Your task to perform on an android device: Open privacy settings Image 0: 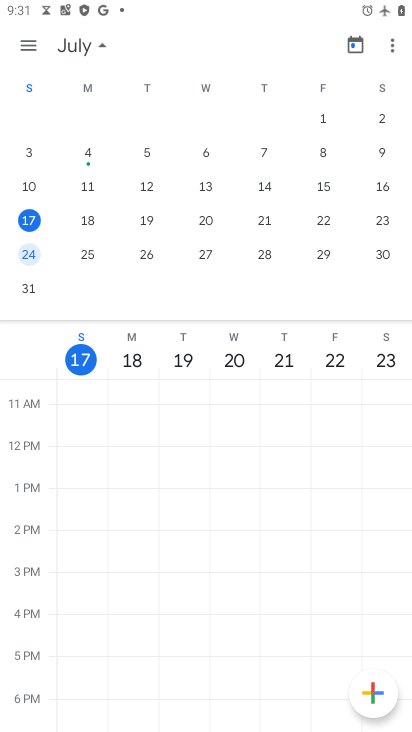
Step 0: press home button
Your task to perform on an android device: Open privacy settings Image 1: 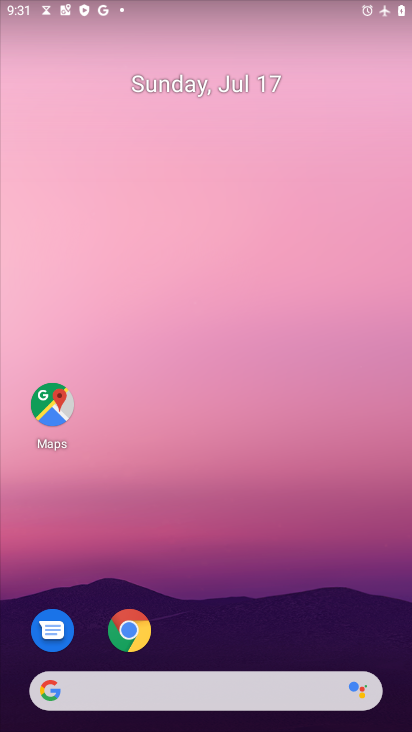
Step 1: drag from (188, 447) to (225, 95)
Your task to perform on an android device: Open privacy settings Image 2: 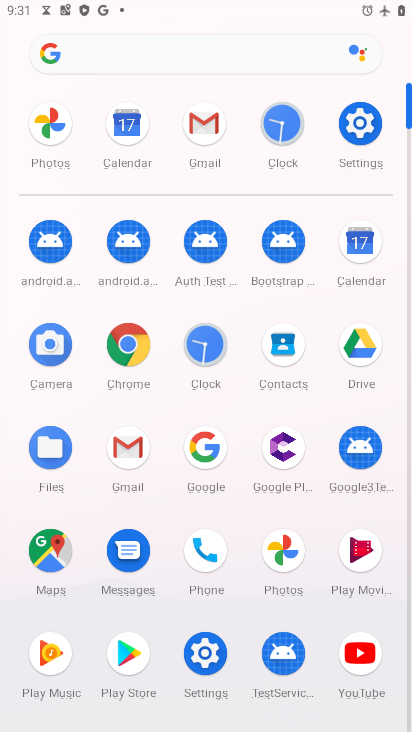
Step 2: click (351, 129)
Your task to perform on an android device: Open privacy settings Image 3: 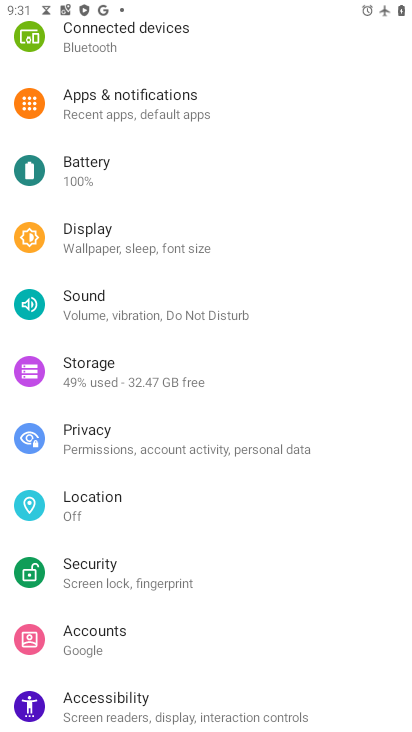
Step 3: click (79, 429)
Your task to perform on an android device: Open privacy settings Image 4: 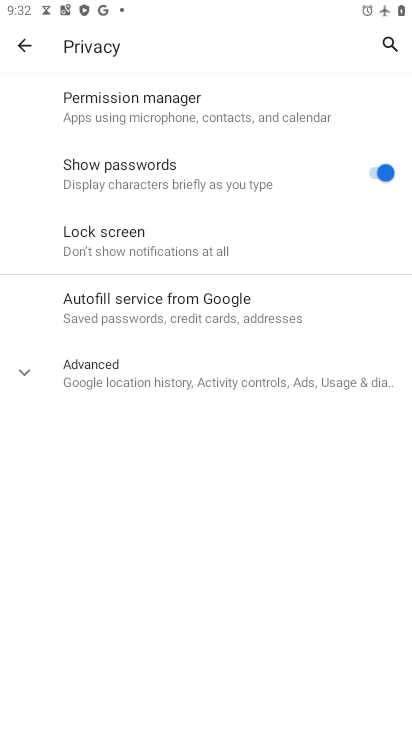
Step 4: task complete